Your task to perform on an android device: open chrome and create a bookmark for the current page Image 0: 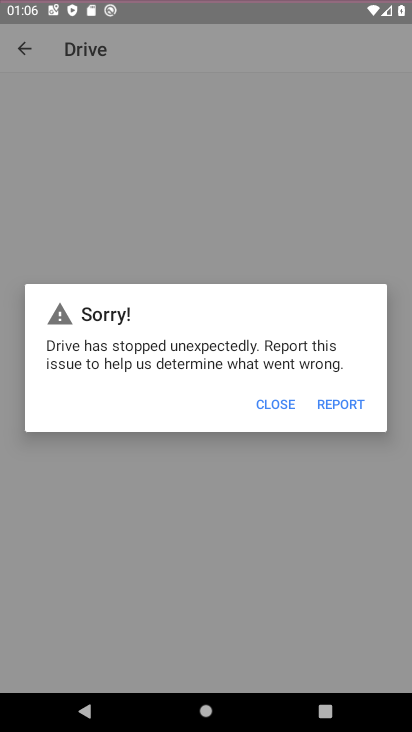
Step 0: click (193, 188)
Your task to perform on an android device: open chrome and create a bookmark for the current page Image 1: 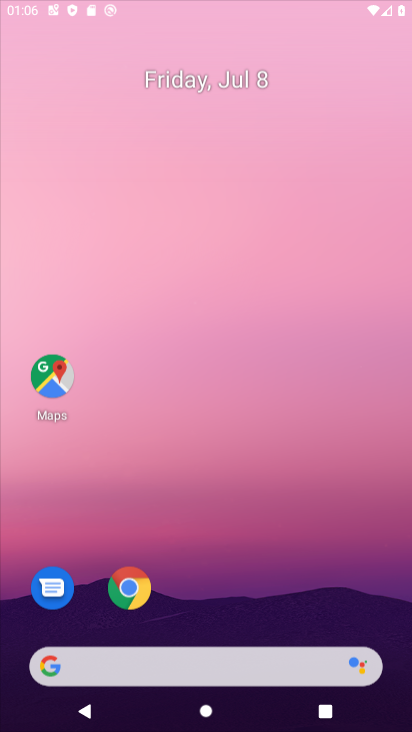
Step 1: drag from (214, 625) to (190, 206)
Your task to perform on an android device: open chrome and create a bookmark for the current page Image 2: 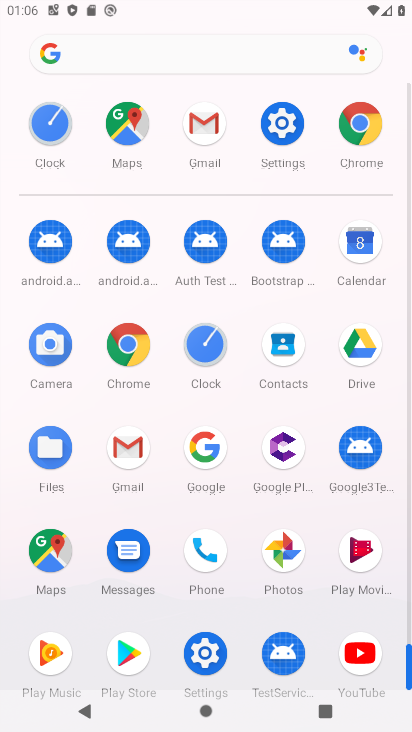
Step 2: click (125, 344)
Your task to perform on an android device: open chrome and create a bookmark for the current page Image 3: 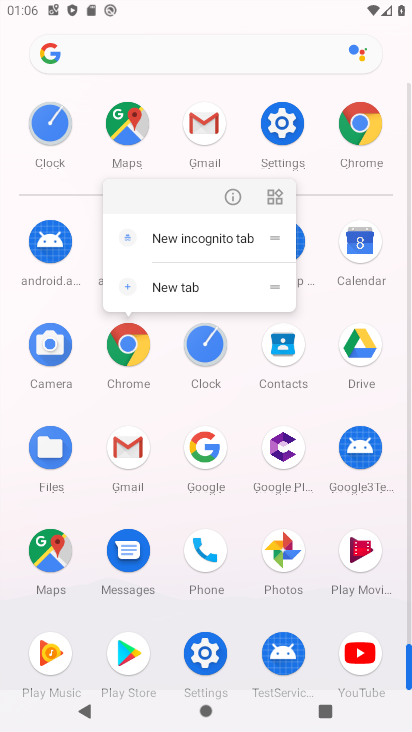
Step 3: click (241, 193)
Your task to perform on an android device: open chrome and create a bookmark for the current page Image 4: 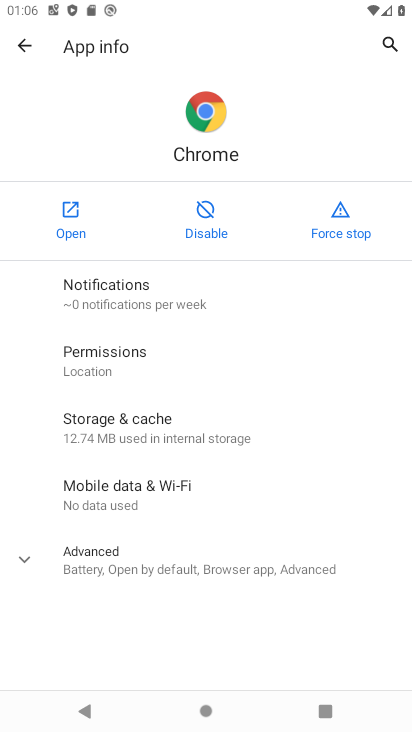
Step 4: click (79, 207)
Your task to perform on an android device: open chrome and create a bookmark for the current page Image 5: 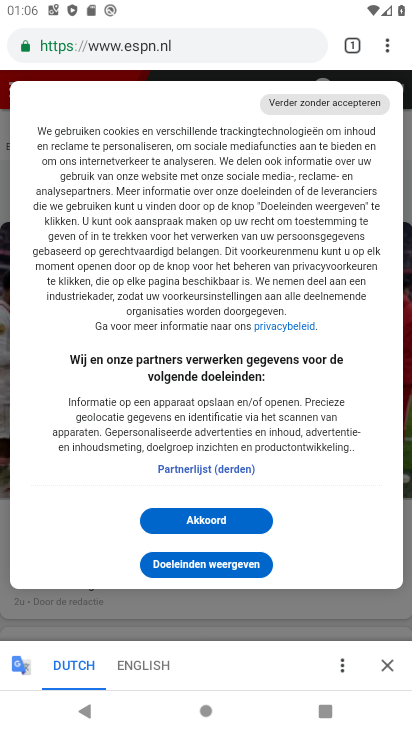
Step 5: click (393, 38)
Your task to perform on an android device: open chrome and create a bookmark for the current page Image 6: 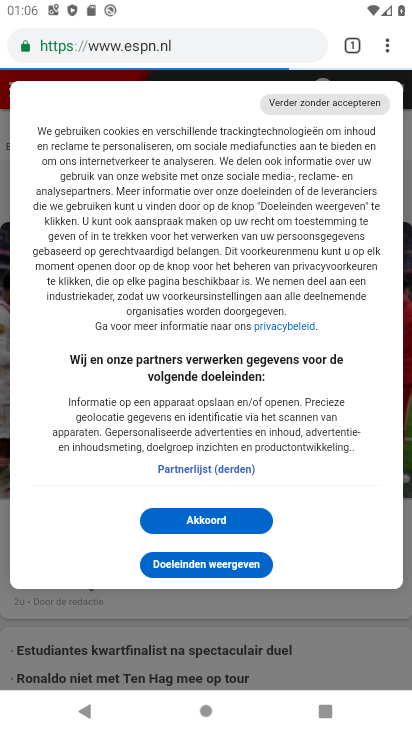
Step 6: click (378, 43)
Your task to perform on an android device: open chrome and create a bookmark for the current page Image 7: 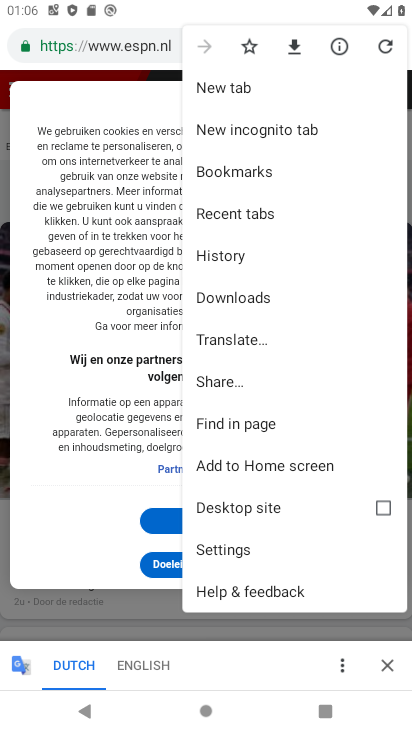
Step 7: click (245, 44)
Your task to perform on an android device: open chrome and create a bookmark for the current page Image 8: 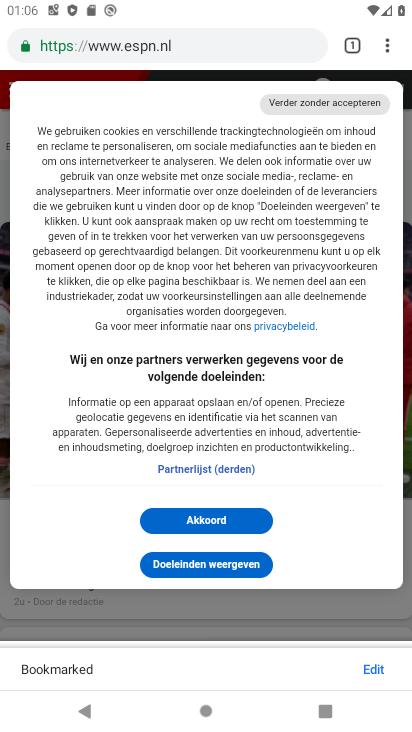
Step 8: task complete